Your task to perform on an android device: empty trash in the gmail app Image 0: 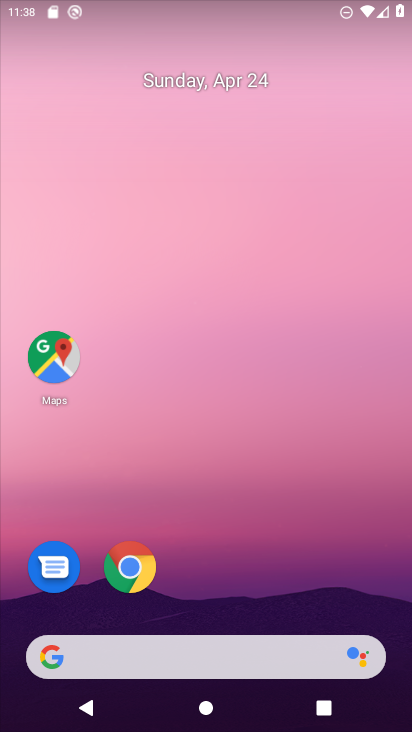
Step 0: drag from (219, 437) to (237, 41)
Your task to perform on an android device: empty trash in the gmail app Image 1: 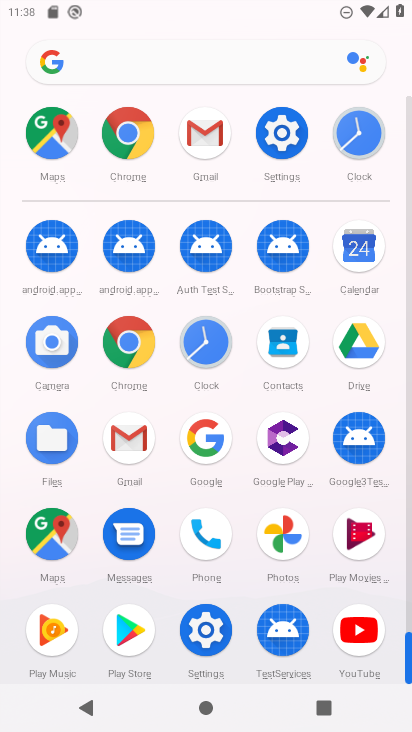
Step 1: click (116, 444)
Your task to perform on an android device: empty trash in the gmail app Image 2: 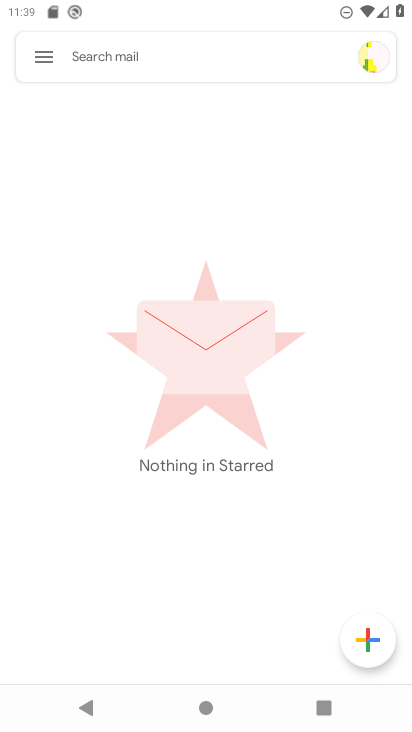
Step 2: click (118, 382)
Your task to perform on an android device: empty trash in the gmail app Image 3: 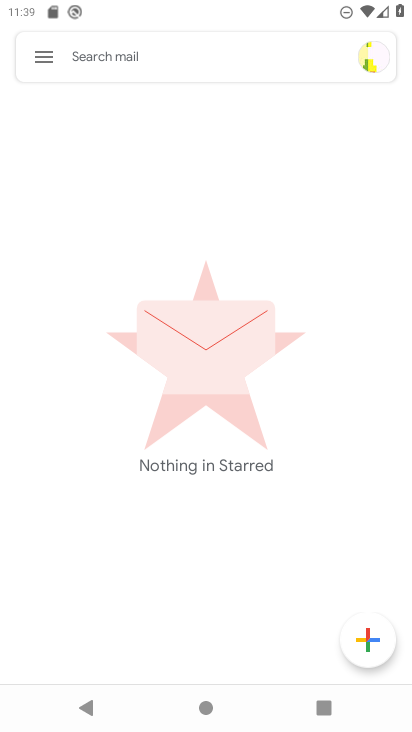
Step 3: click (50, 60)
Your task to perform on an android device: empty trash in the gmail app Image 4: 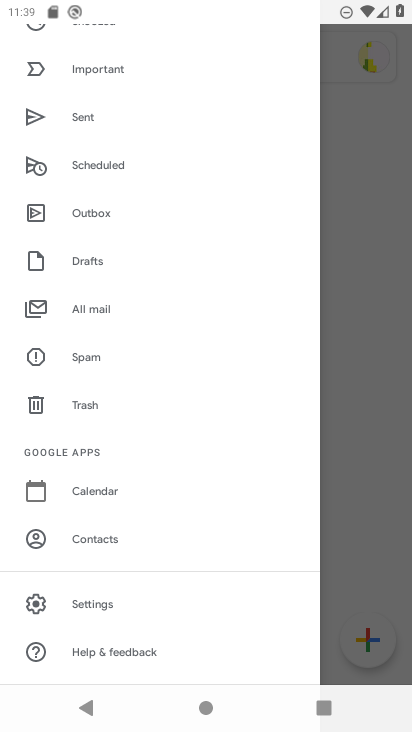
Step 4: click (85, 407)
Your task to perform on an android device: empty trash in the gmail app Image 5: 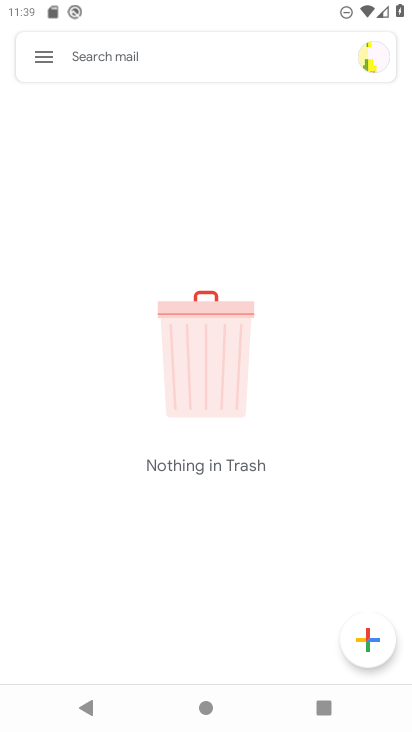
Step 5: task complete